Your task to perform on an android device: Turn on the flashlight Image 0: 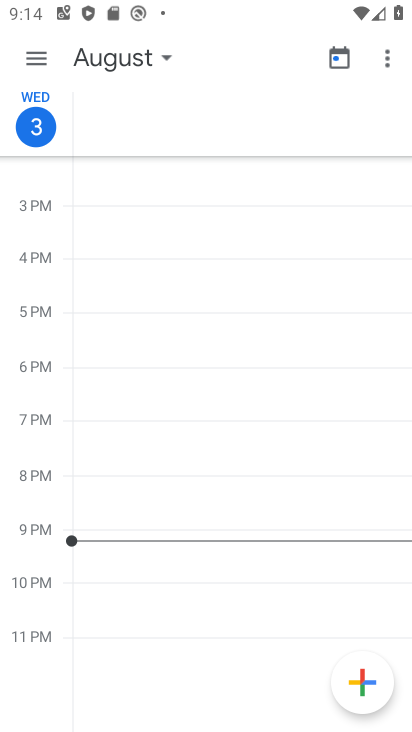
Step 0: press home button
Your task to perform on an android device: Turn on the flashlight Image 1: 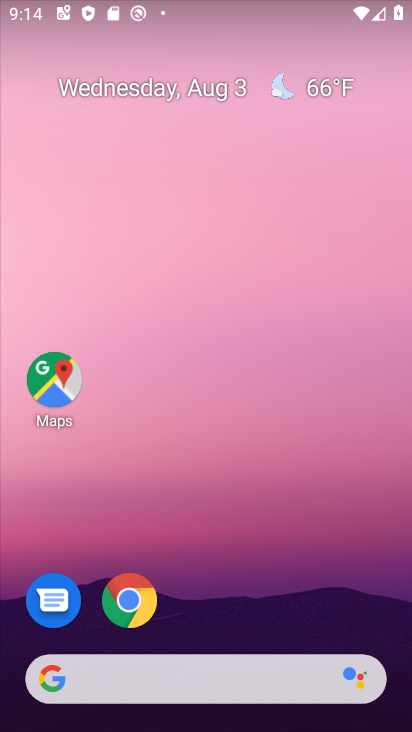
Step 1: drag from (208, 625) to (203, 81)
Your task to perform on an android device: Turn on the flashlight Image 2: 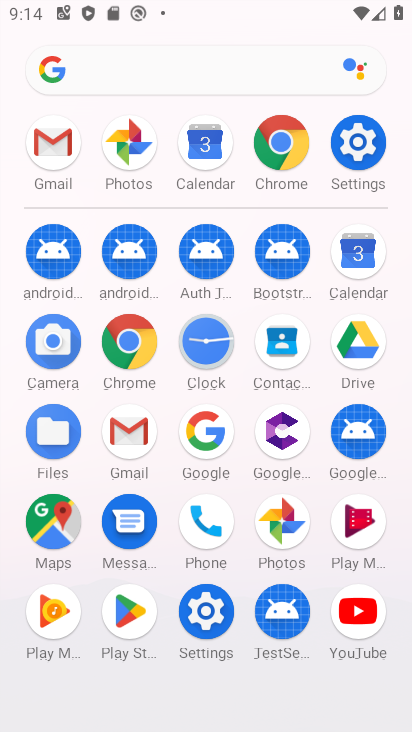
Step 2: click (371, 150)
Your task to perform on an android device: Turn on the flashlight Image 3: 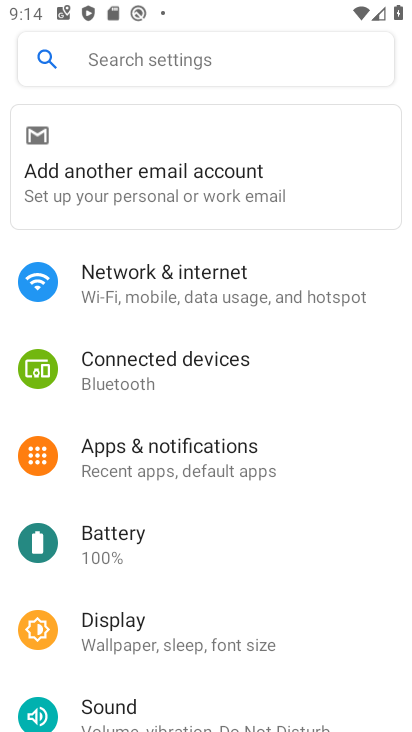
Step 3: click (190, 50)
Your task to perform on an android device: Turn on the flashlight Image 4: 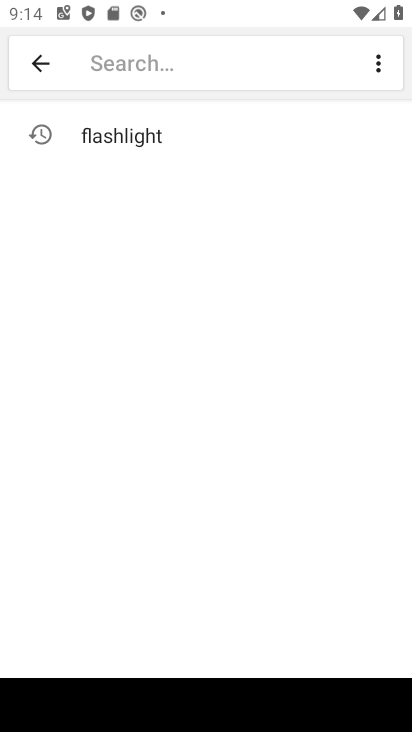
Step 4: click (112, 149)
Your task to perform on an android device: Turn on the flashlight Image 5: 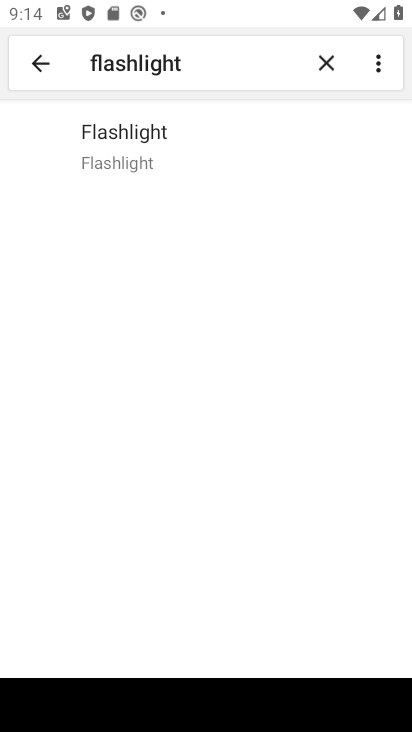
Step 5: click (110, 151)
Your task to perform on an android device: Turn on the flashlight Image 6: 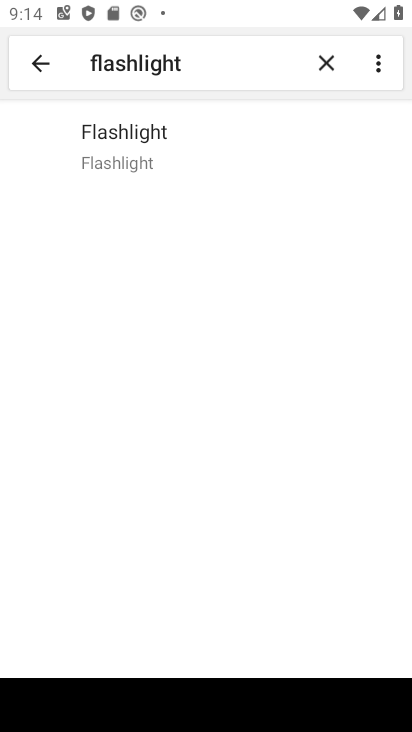
Step 6: task complete